Your task to perform on an android device: Search for pizza restaurants on Maps Image 0: 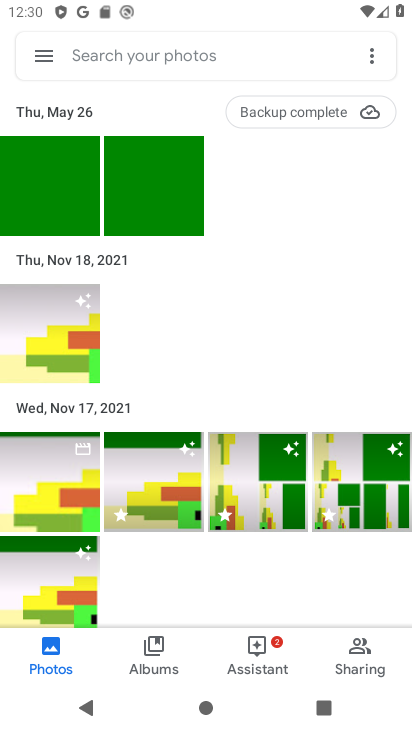
Step 0: press home button
Your task to perform on an android device: Search for pizza restaurants on Maps Image 1: 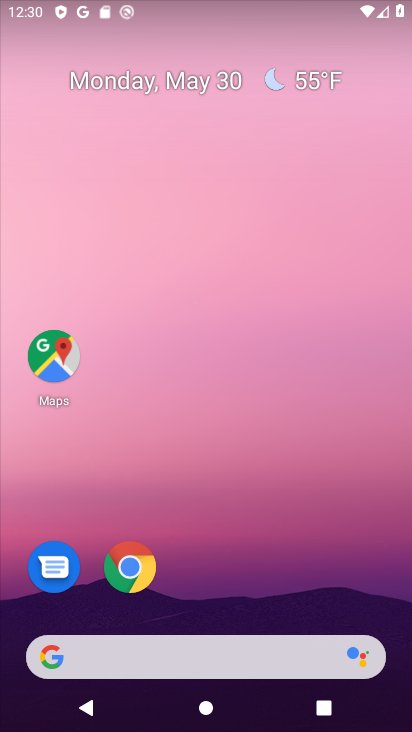
Step 1: click (54, 354)
Your task to perform on an android device: Search for pizza restaurants on Maps Image 2: 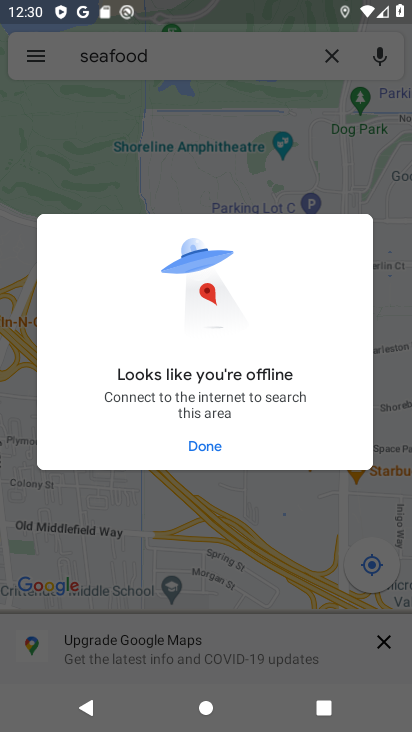
Step 2: click (213, 438)
Your task to perform on an android device: Search for pizza restaurants on Maps Image 3: 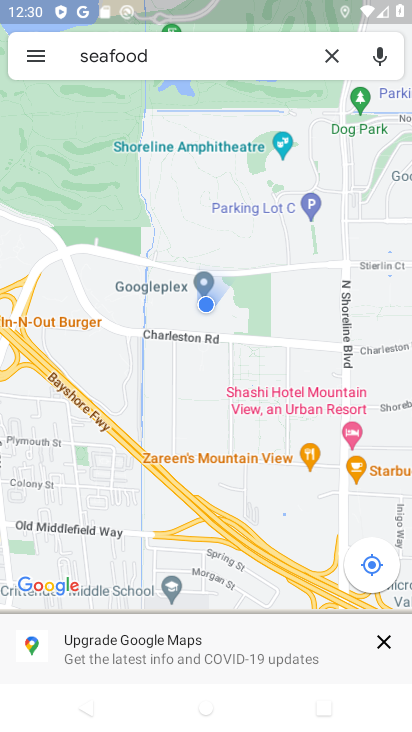
Step 3: click (334, 59)
Your task to perform on an android device: Search for pizza restaurants on Maps Image 4: 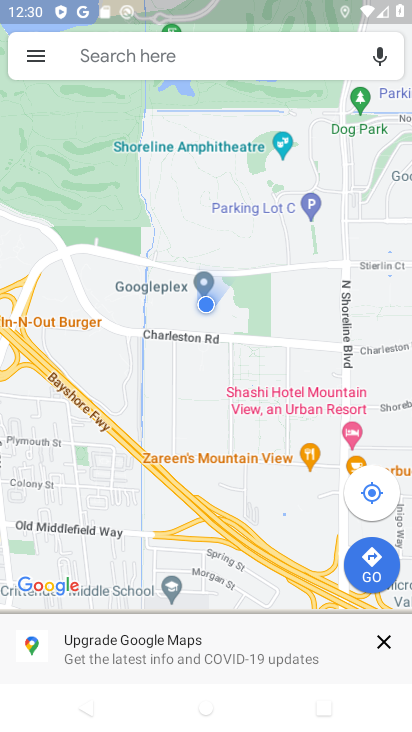
Step 4: click (152, 54)
Your task to perform on an android device: Search for pizza restaurants on Maps Image 5: 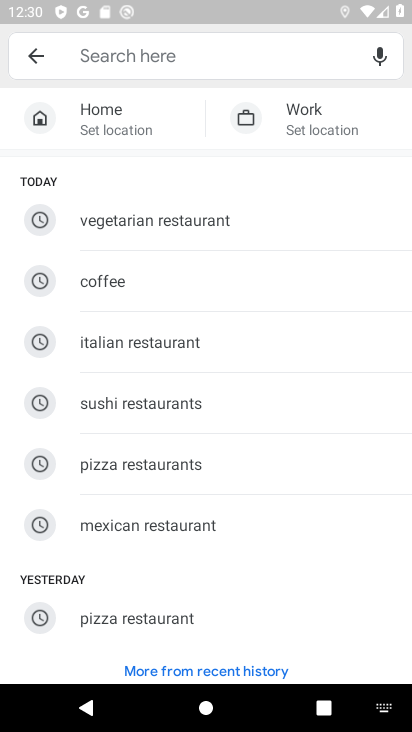
Step 5: click (150, 457)
Your task to perform on an android device: Search for pizza restaurants on Maps Image 6: 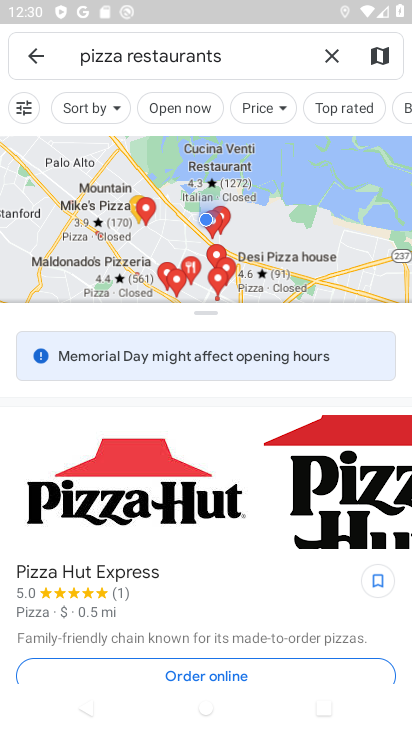
Step 6: drag from (230, 614) to (252, 281)
Your task to perform on an android device: Search for pizza restaurants on Maps Image 7: 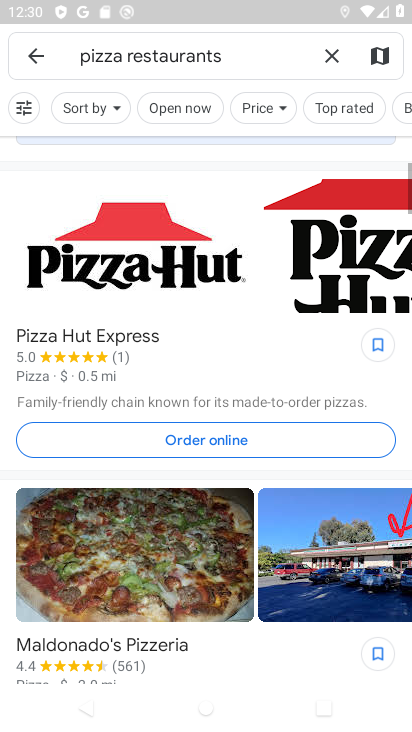
Step 7: click (265, 201)
Your task to perform on an android device: Search for pizza restaurants on Maps Image 8: 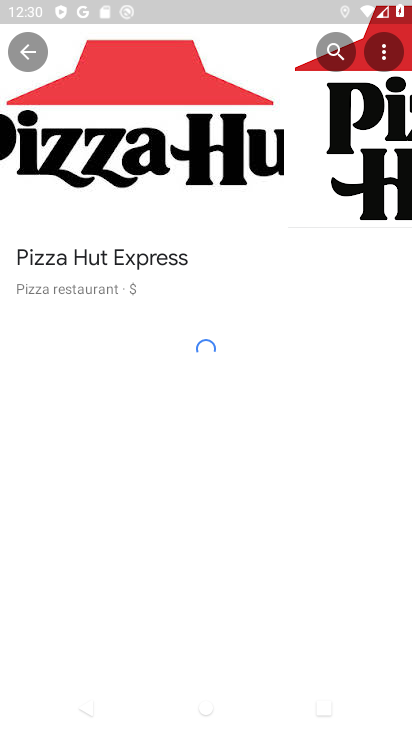
Step 8: task complete